Your task to perform on an android device: Where can I buy a nice beach tent? Image 0: 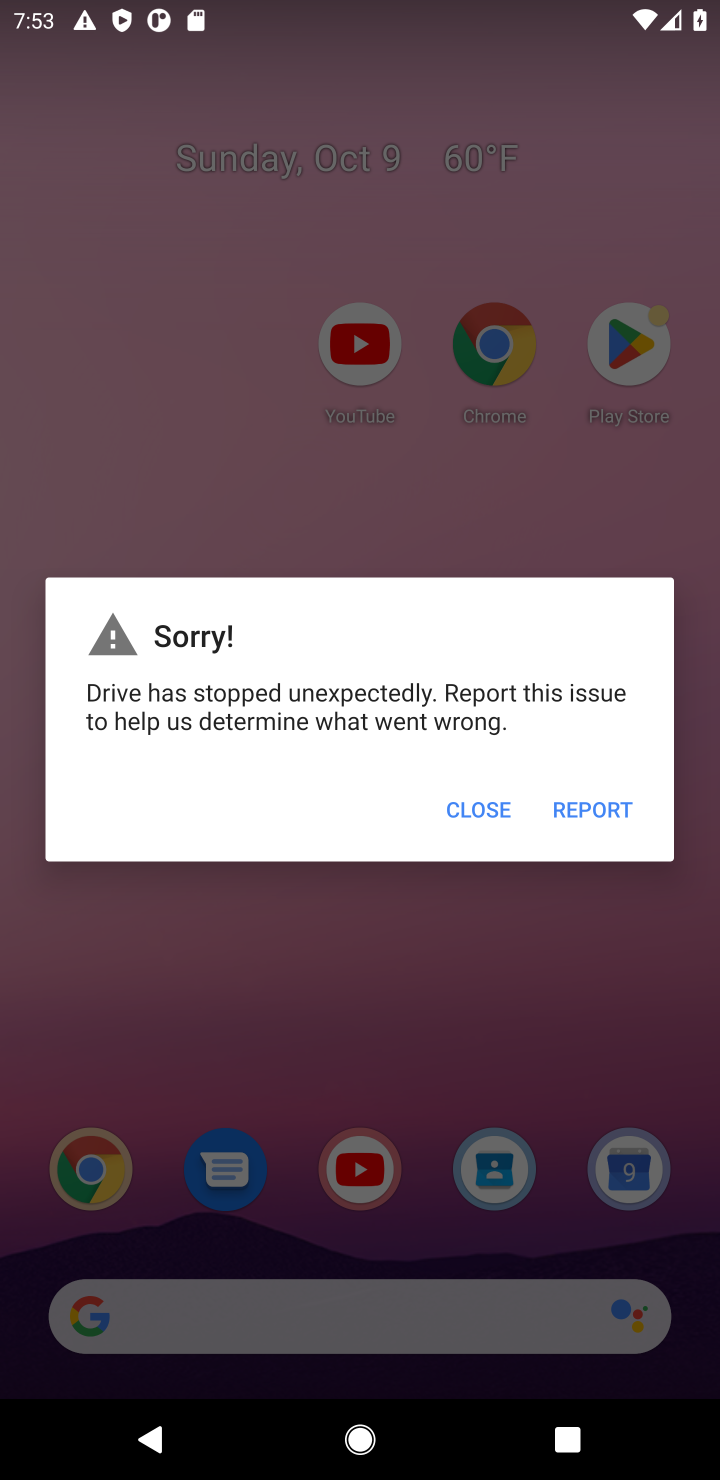
Step 0: press home button
Your task to perform on an android device: Where can I buy a nice beach tent? Image 1: 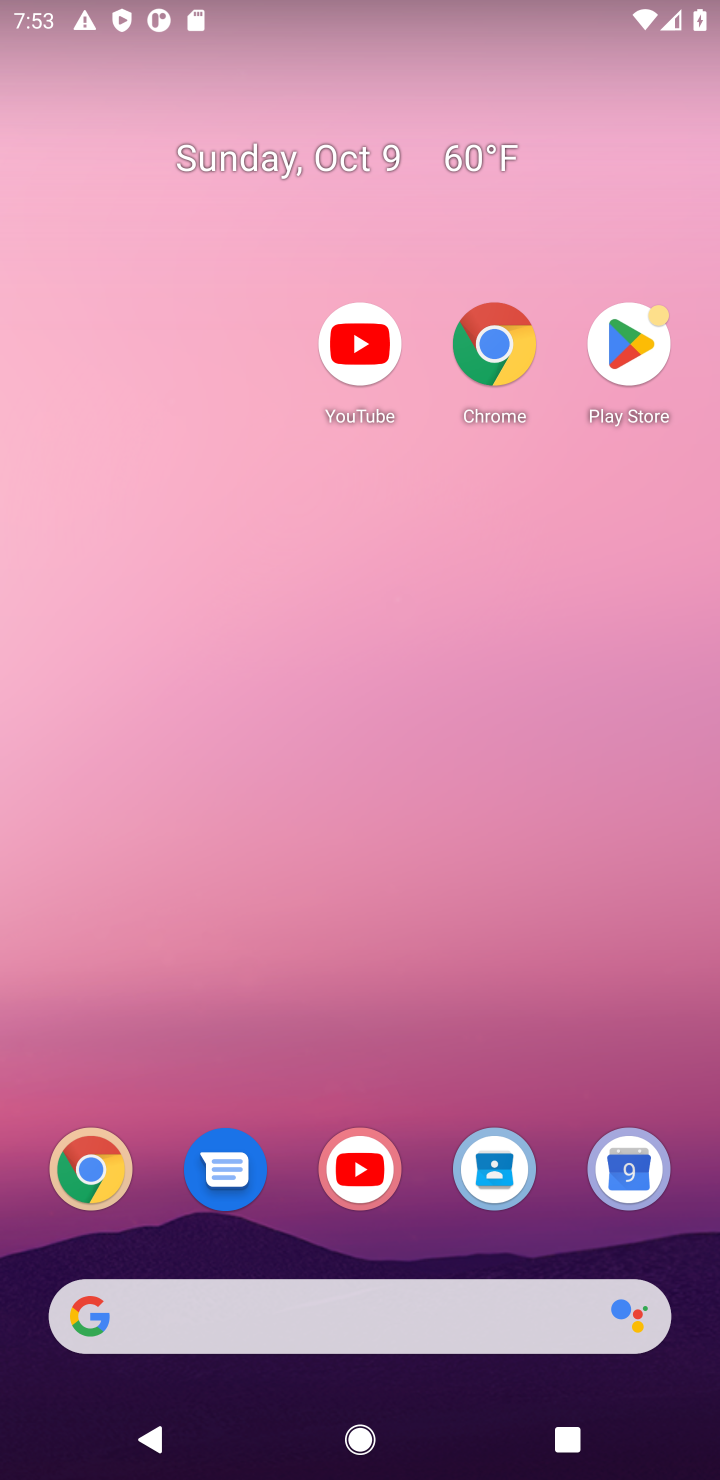
Step 1: press home button
Your task to perform on an android device: Where can I buy a nice beach tent? Image 2: 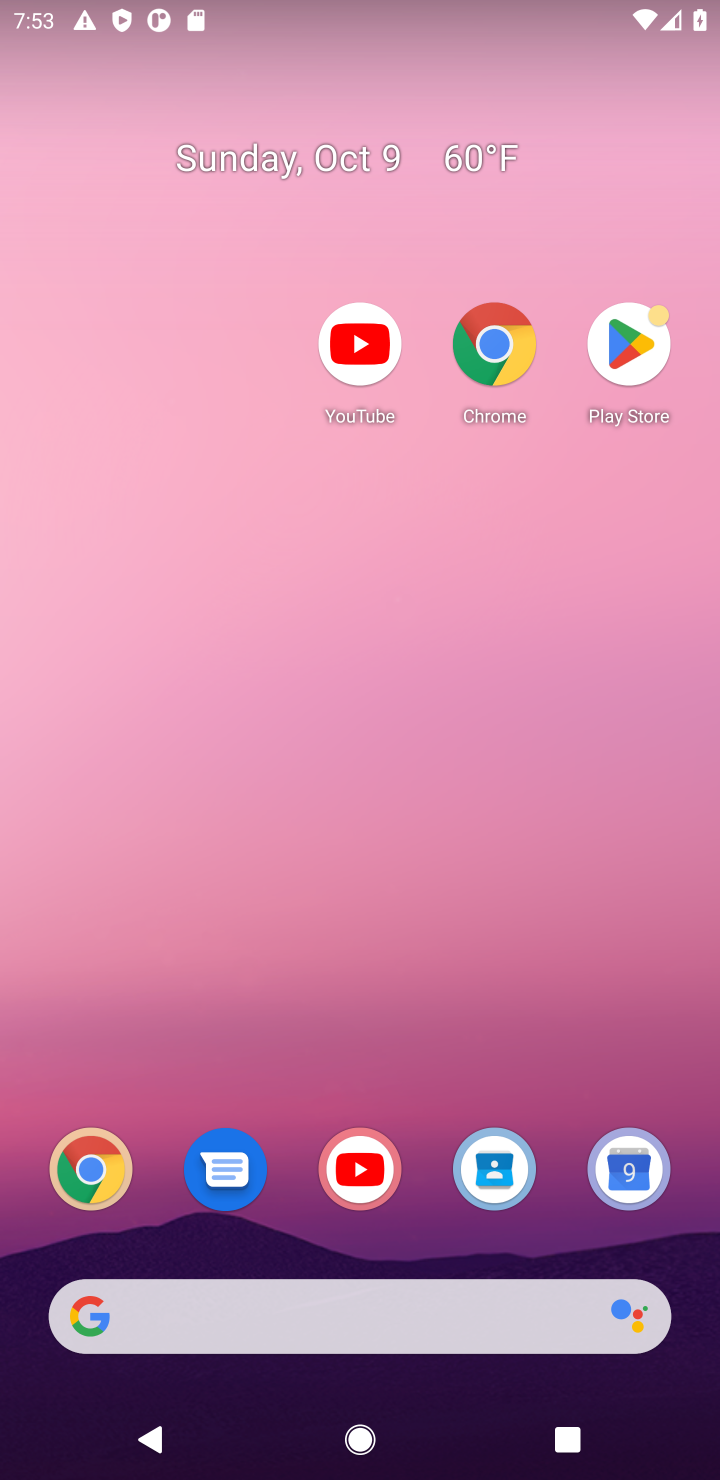
Step 2: drag from (450, 1256) to (303, 303)
Your task to perform on an android device: Where can I buy a nice beach tent? Image 3: 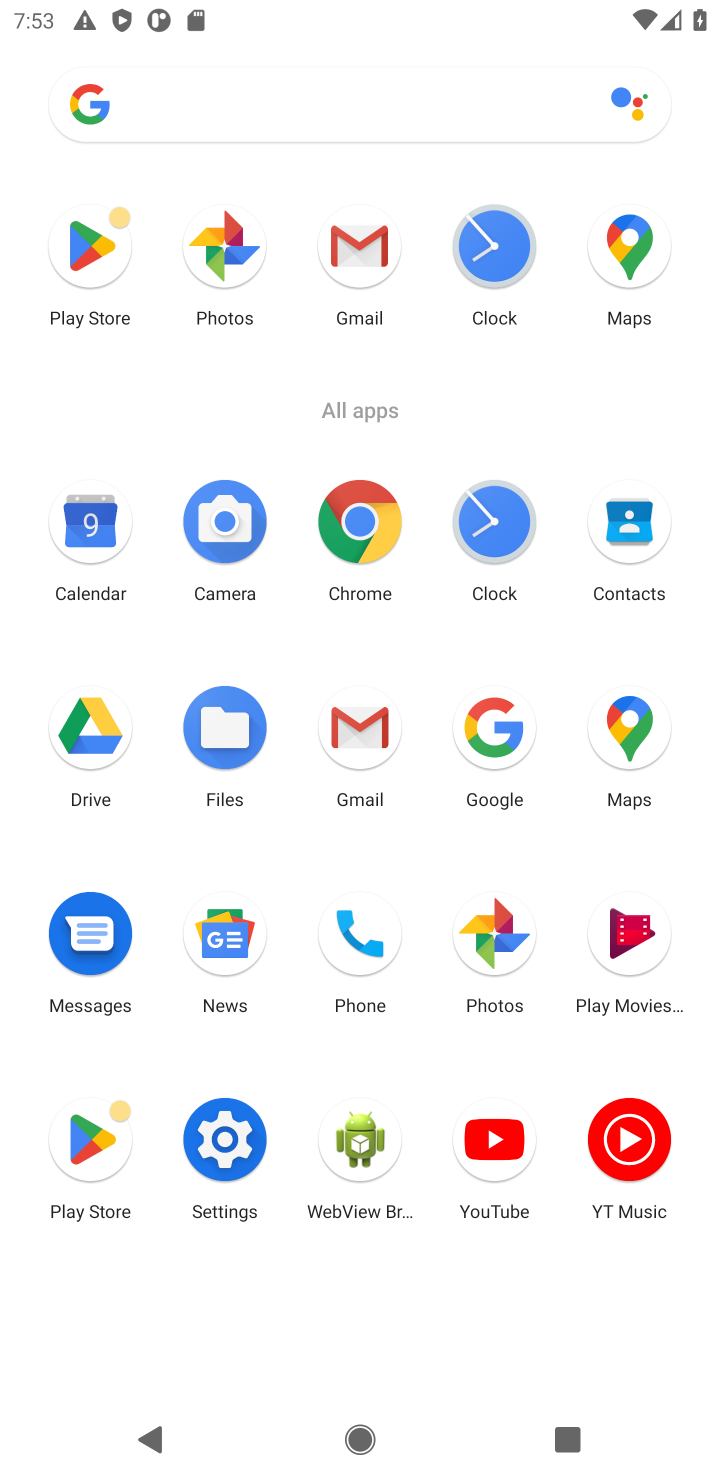
Step 3: click (354, 522)
Your task to perform on an android device: Where can I buy a nice beach tent? Image 4: 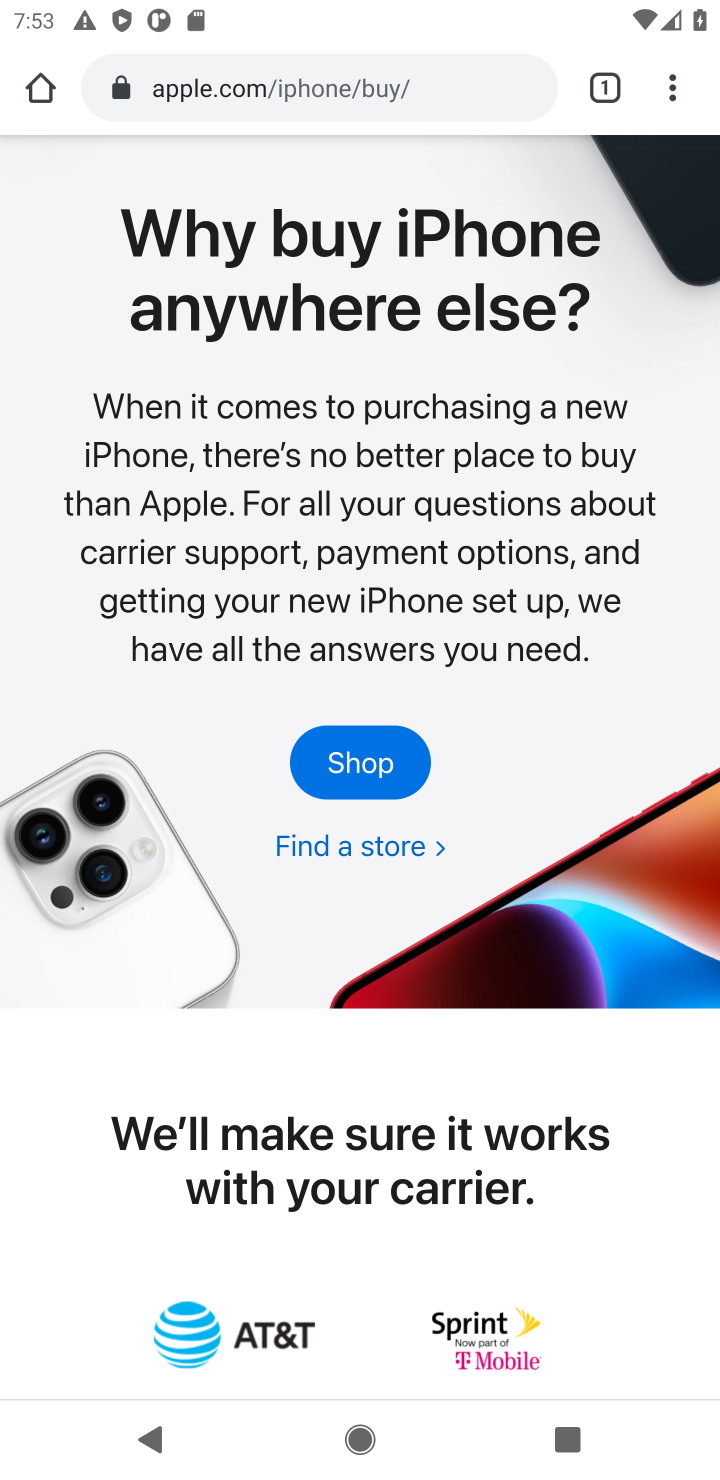
Step 4: click (405, 75)
Your task to perform on an android device: Where can I buy a nice beach tent? Image 5: 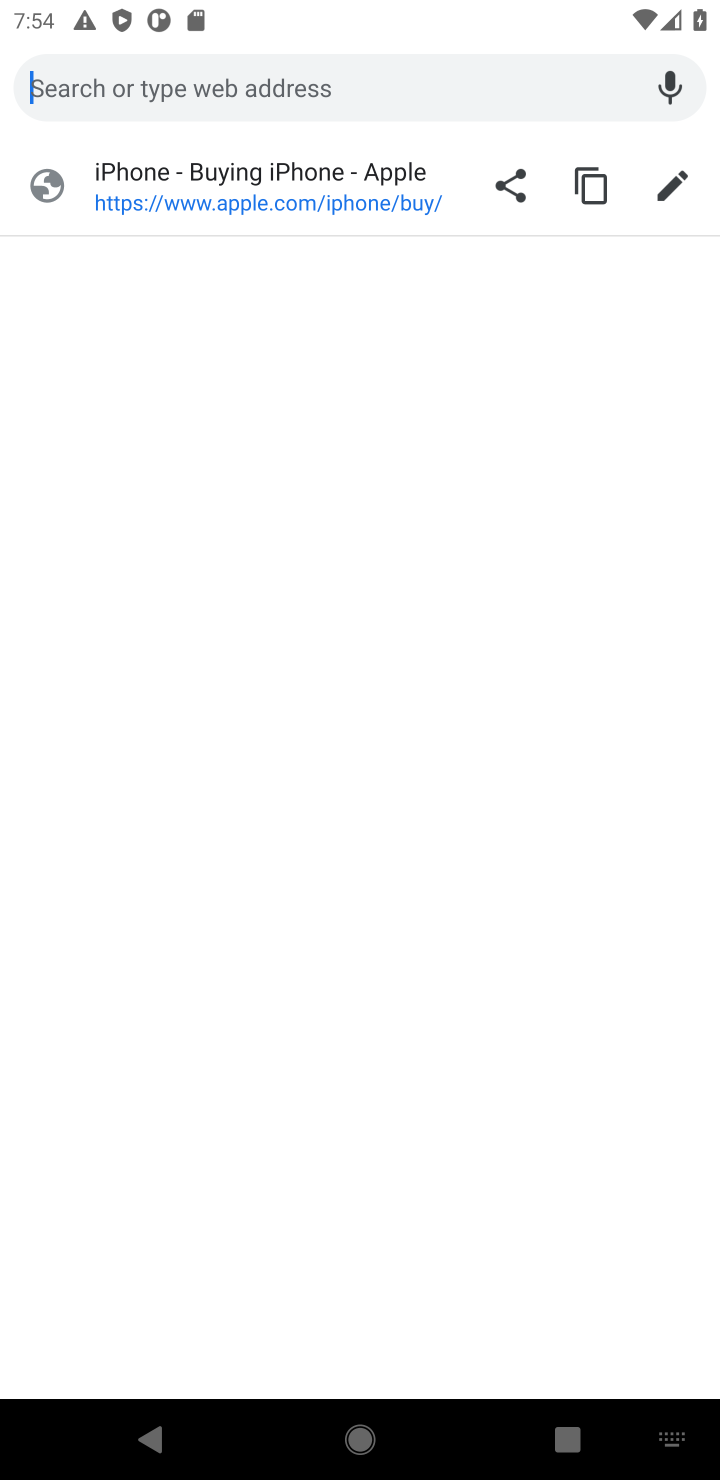
Step 5: type "Where can I buy nice beach tnt"
Your task to perform on an android device: Where can I buy a nice beach tent? Image 6: 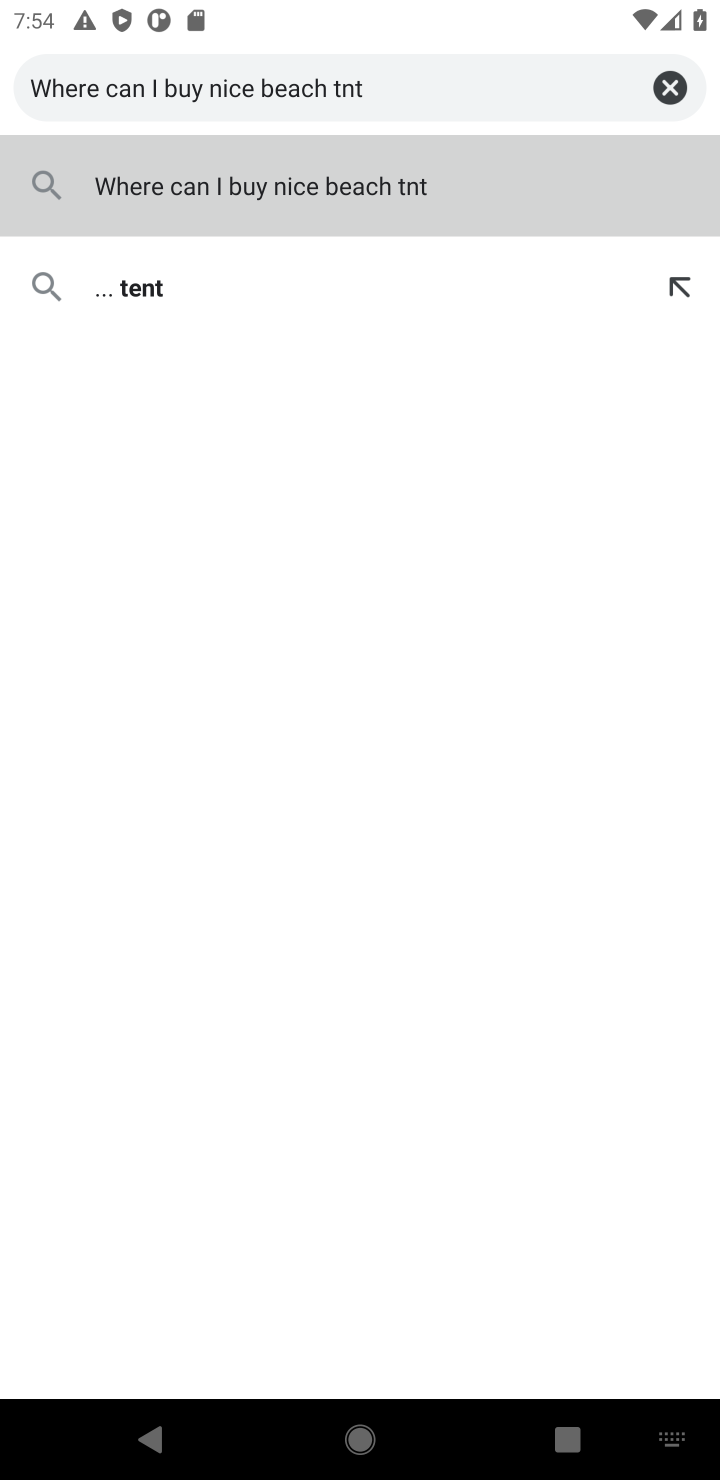
Step 6: press enter
Your task to perform on an android device: Where can I buy a nice beach tent? Image 7: 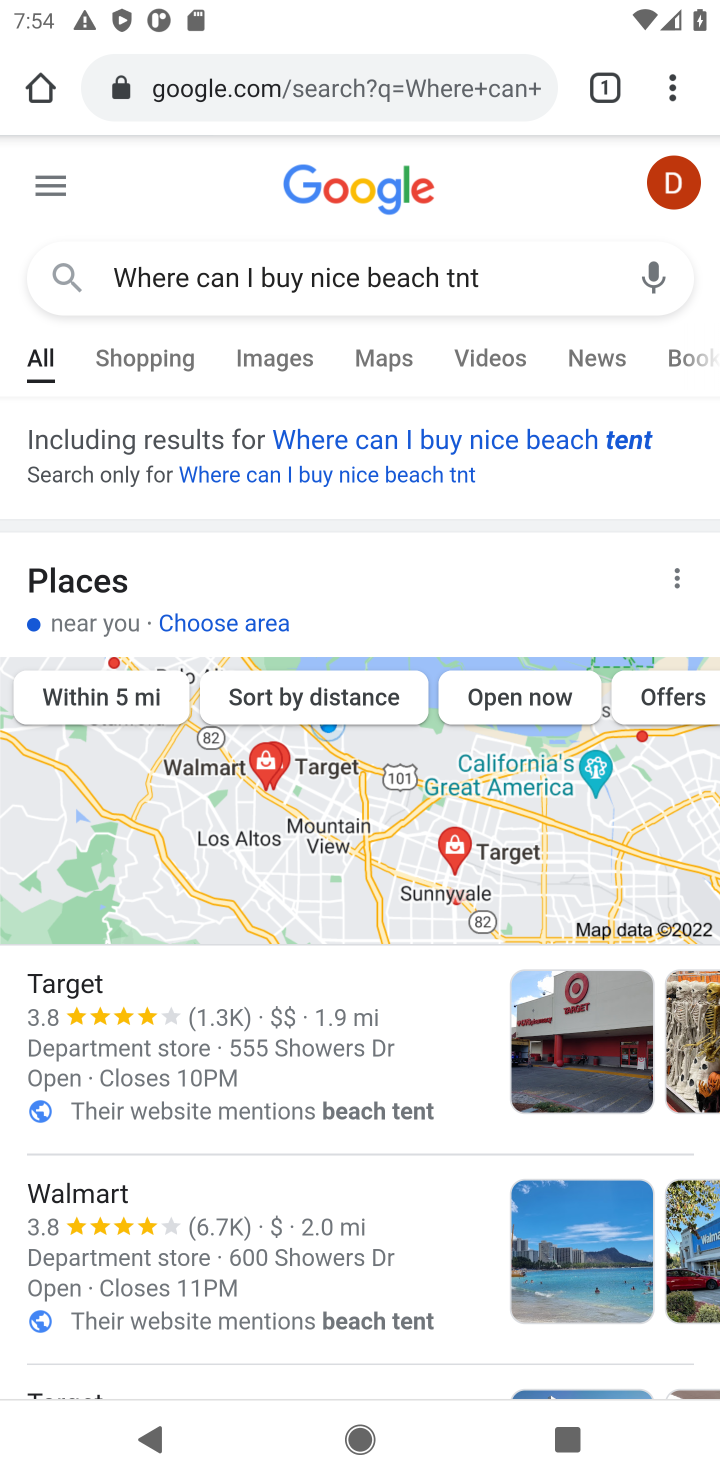
Step 7: click (602, 439)
Your task to perform on an android device: Where can I buy a nice beach tent? Image 8: 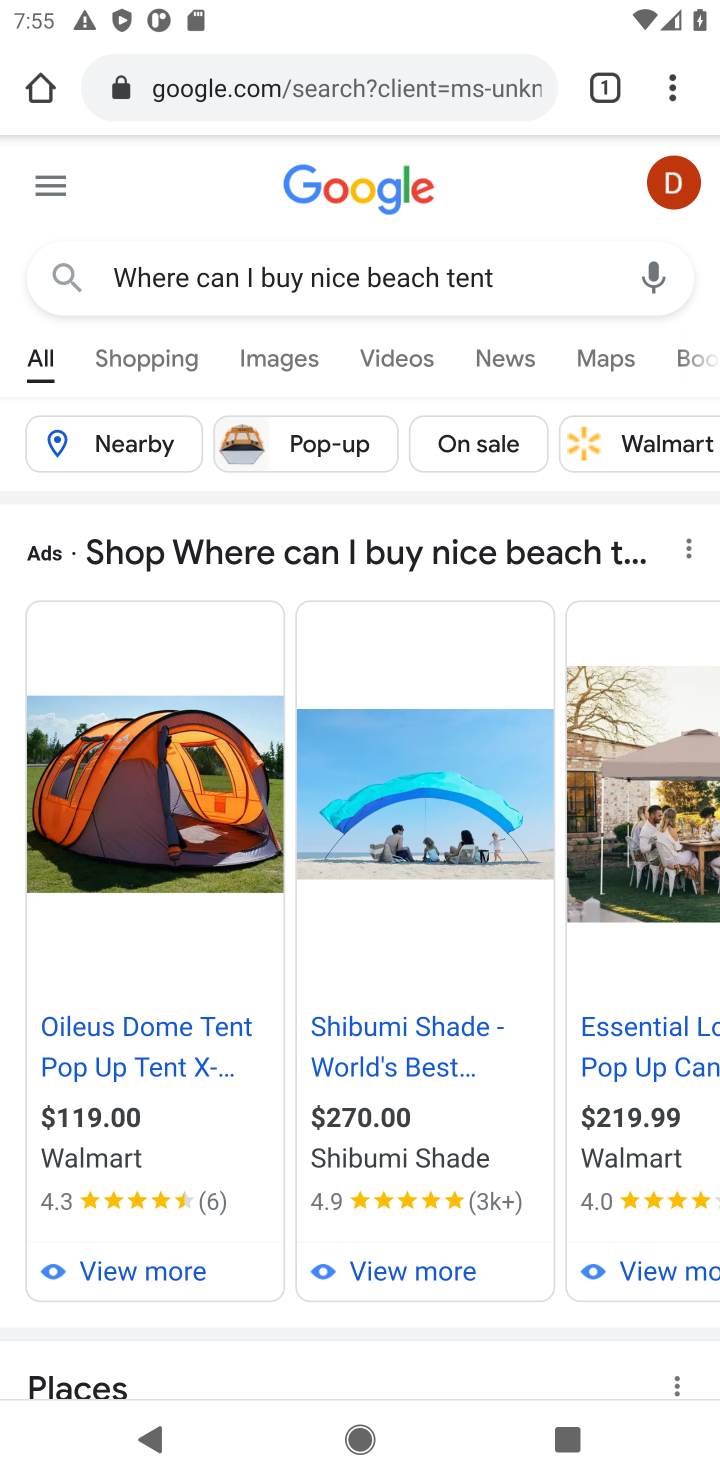
Step 8: task complete